Your task to perform on an android device: Go to battery settings Image 0: 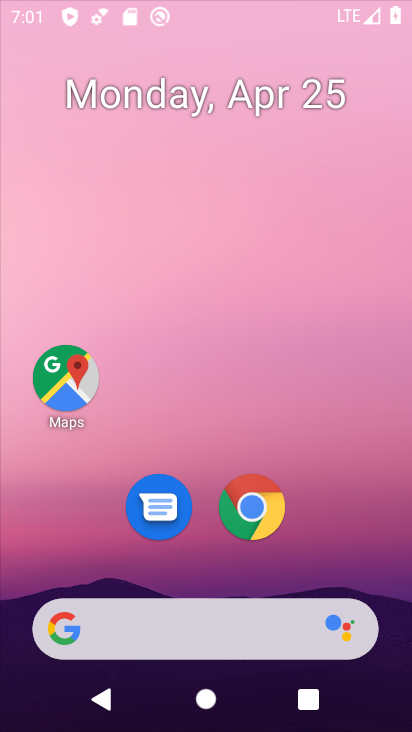
Step 0: click (323, 87)
Your task to perform on an android device: Go to battery settings Image 1: 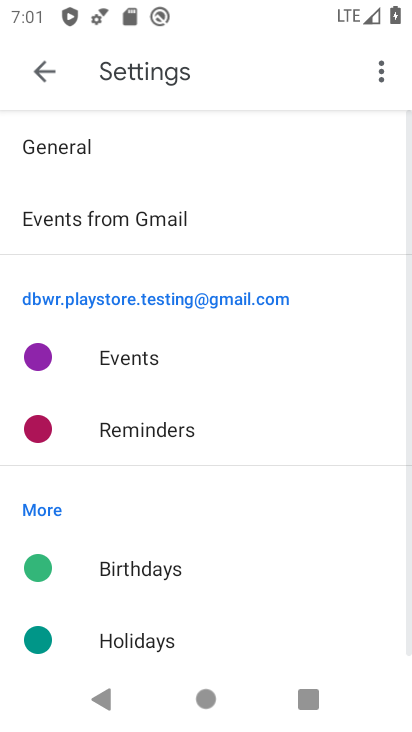
Step 1: press home button
Your task to perform on an android device: Go to battery settings Image 2: 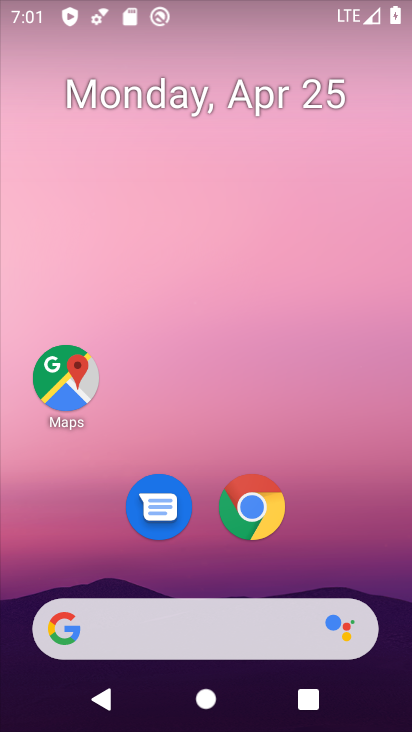
Step 2: drag from (334, 545) to (314, 365)
Your task to perform on an android device: Go to battery settings Image 3: 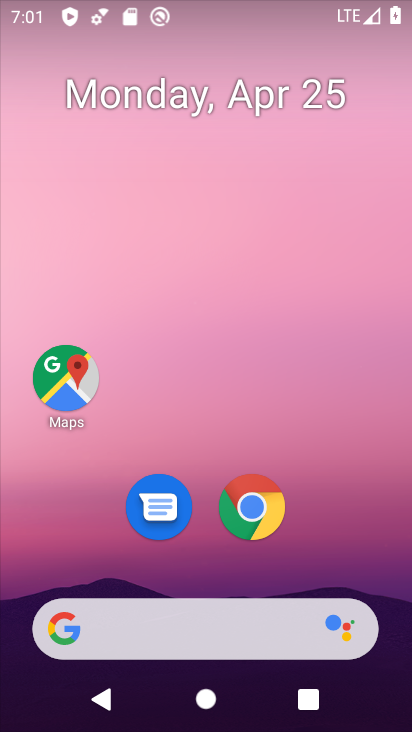
Step 3: drag from (364, 518) to (293, 184)
Your task to perform on an android device: Go to battery settings Image 4: 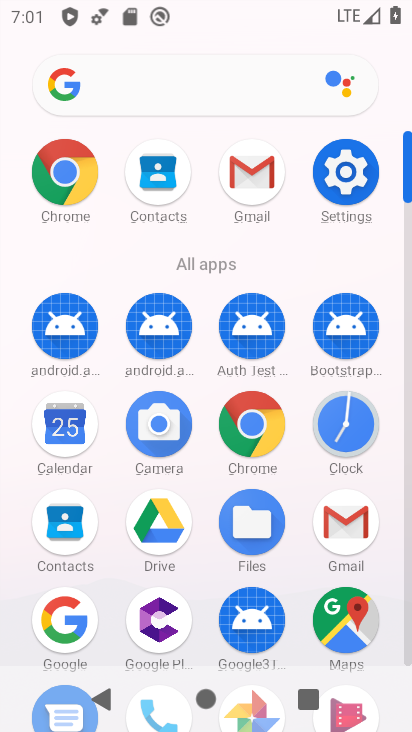
Step 4: click (357, 183)
Your task to perform on an android device: Go to battery settings Image 5: 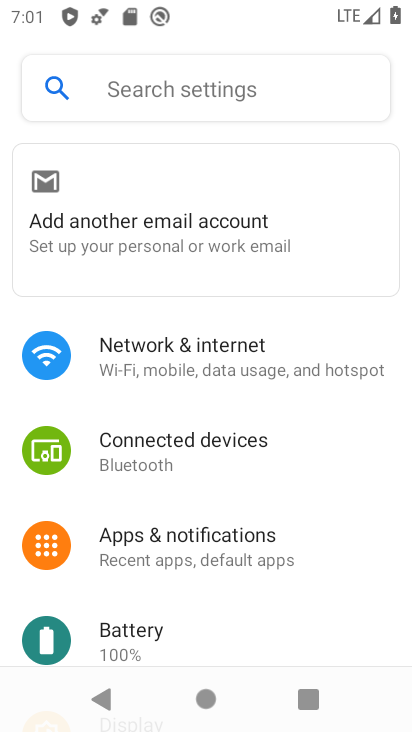
Step 5: click (127, 614)
Your task to perform on an android device: Go to battery settings Image 6: 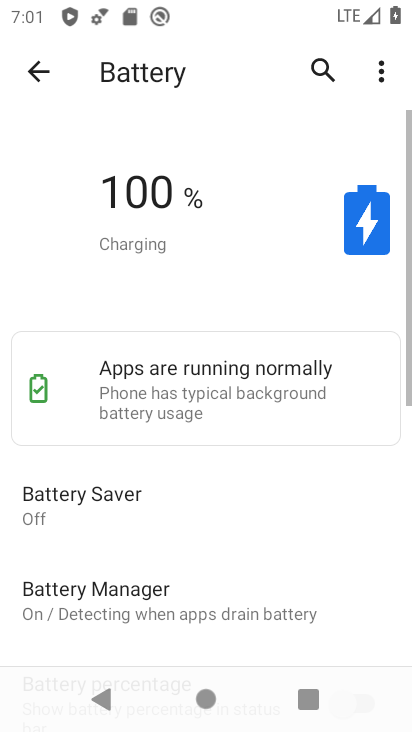
Step 6: task complete